Your task to perform on an android device: turn on bluetooth scan Image 0: 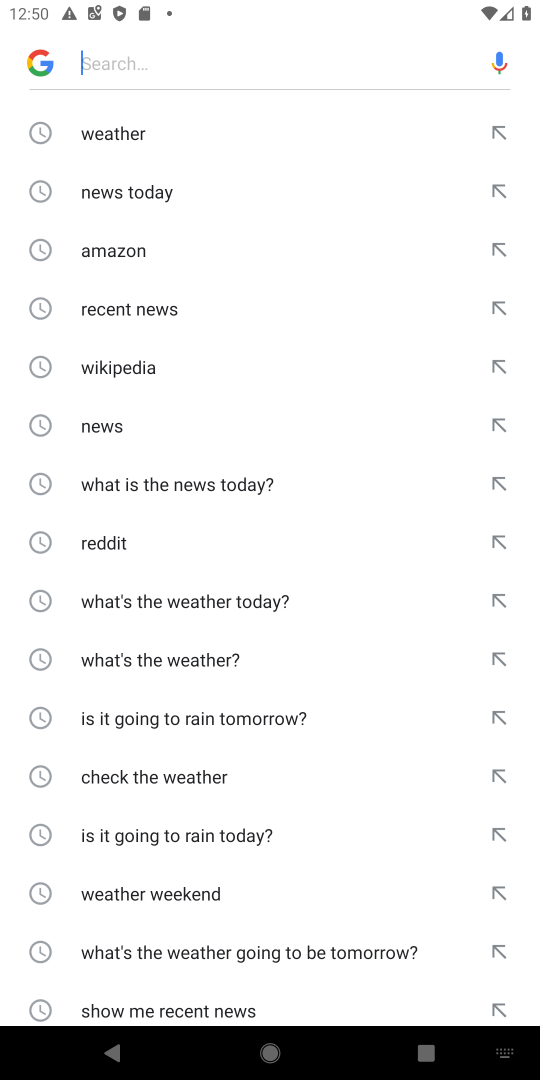
Step 0: press home button
Your task to perform on an android device: turn on bluetooth scan Image 1: 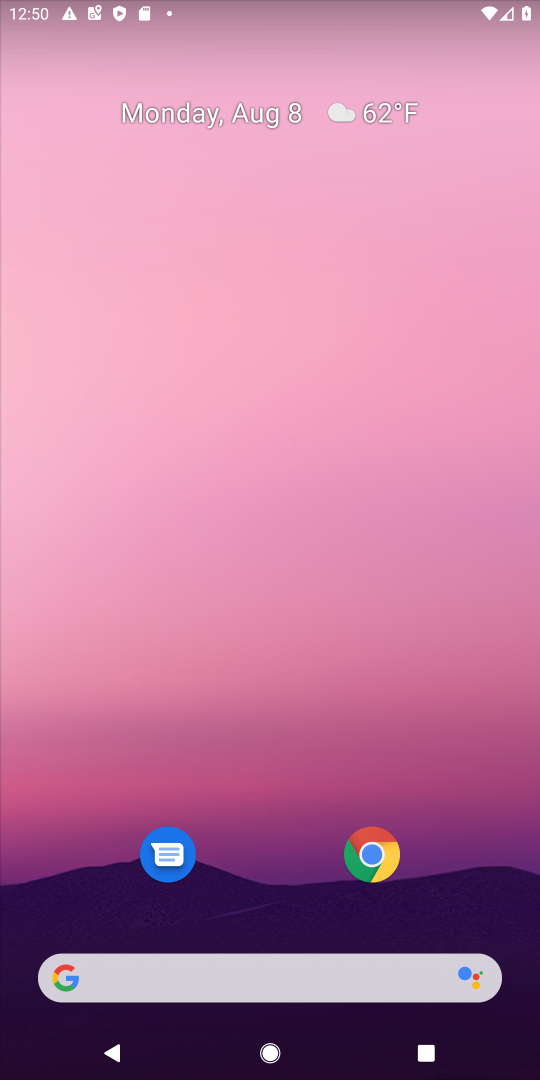
Step 1: drag from (267, 857) to (150, 14)
Your task to perform on an android device: turn on bluetooth scan Image 2: 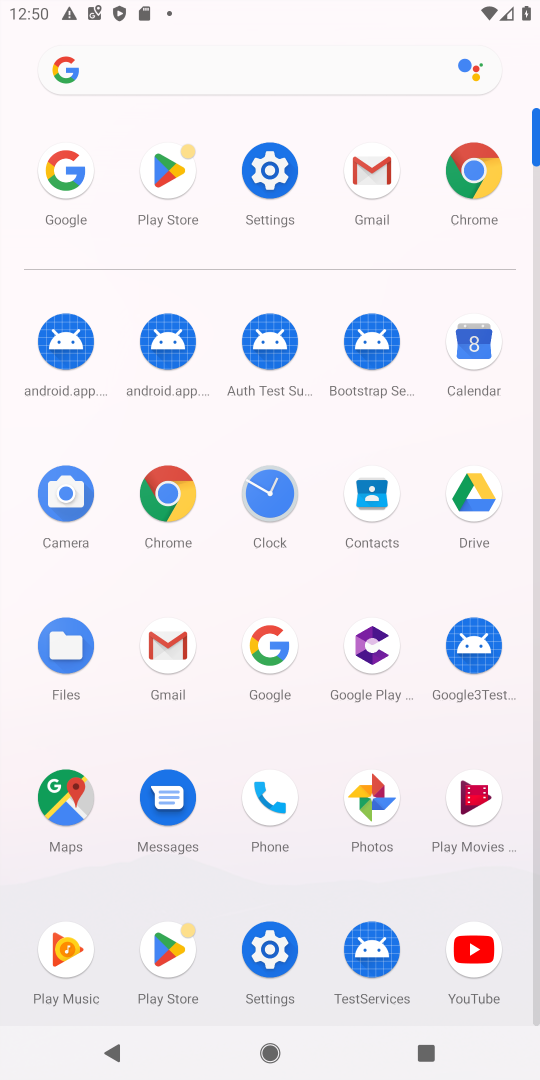
Step 2: click (278, 162)
Your task to perform on an android device: turn on bluetooth scan Image 3: 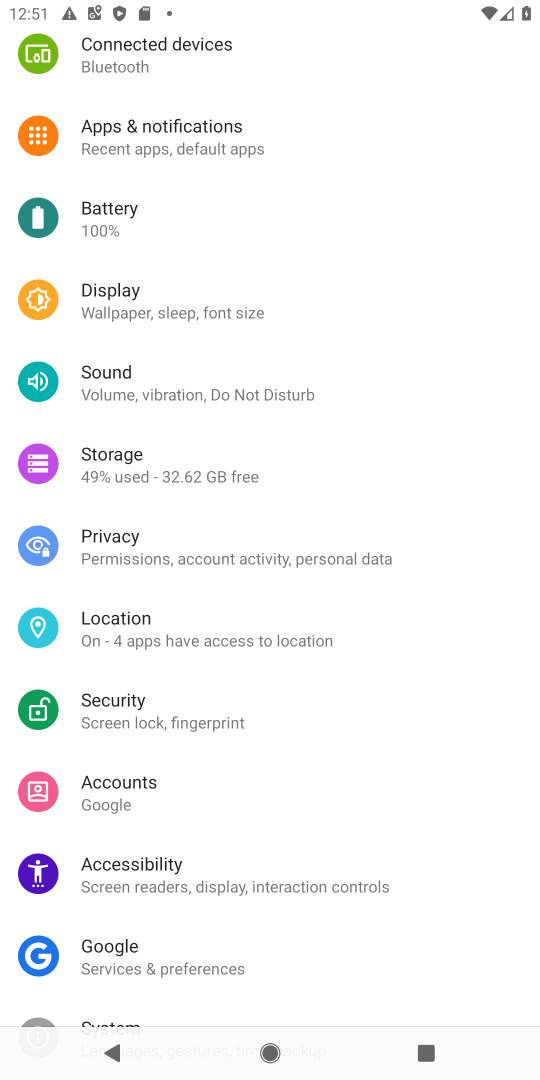
Step 3: click (123, 634)
Your task to perform on an android device: turn on bluetooth scan Image 4: 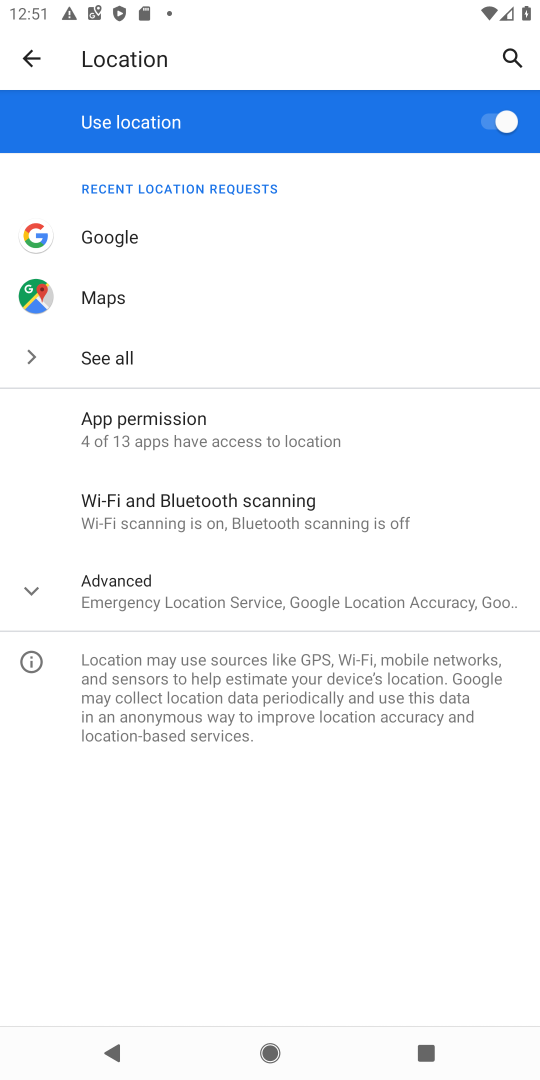
Step 4: click (24, 586)
Your task to perform on an android device: turn on bluetooth scan Image 5: 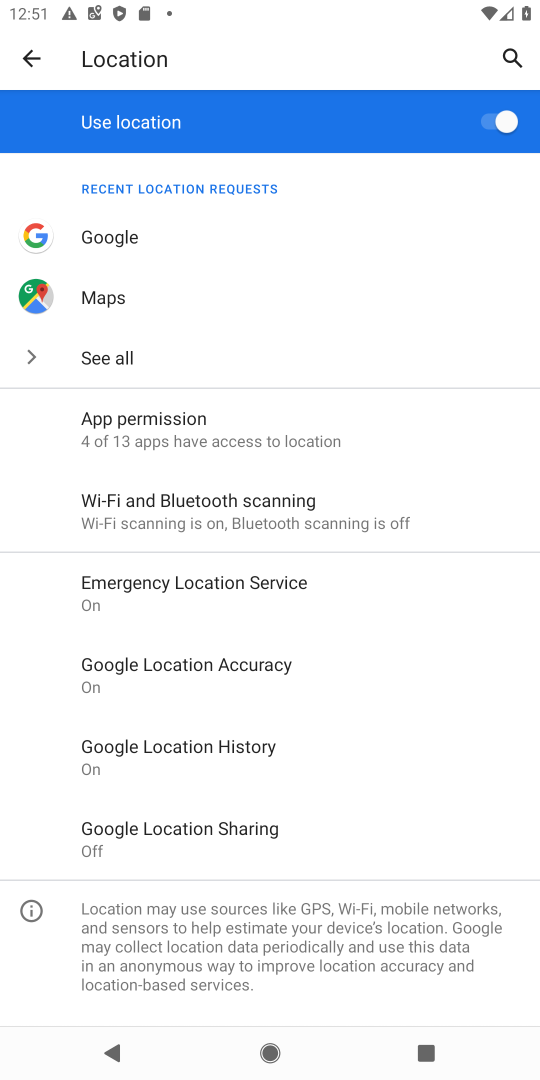
Step 5: click (197, 495)
Your task to perform on an android device: turn on bluetooth scan Image 6: 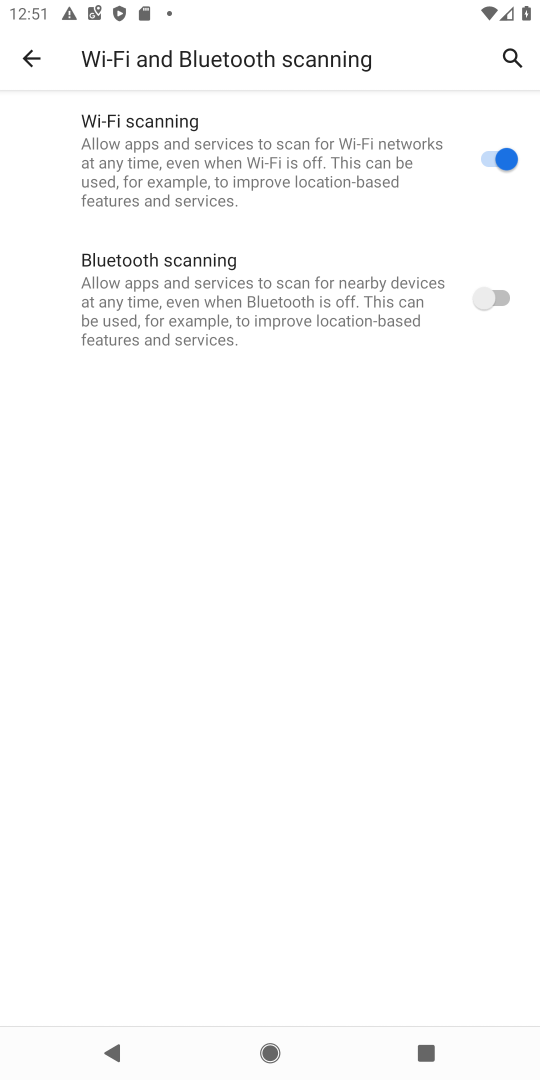
Step 6: click (489, 286)
Your task to perform on an android device: turn on bluetooth scan Image 7: 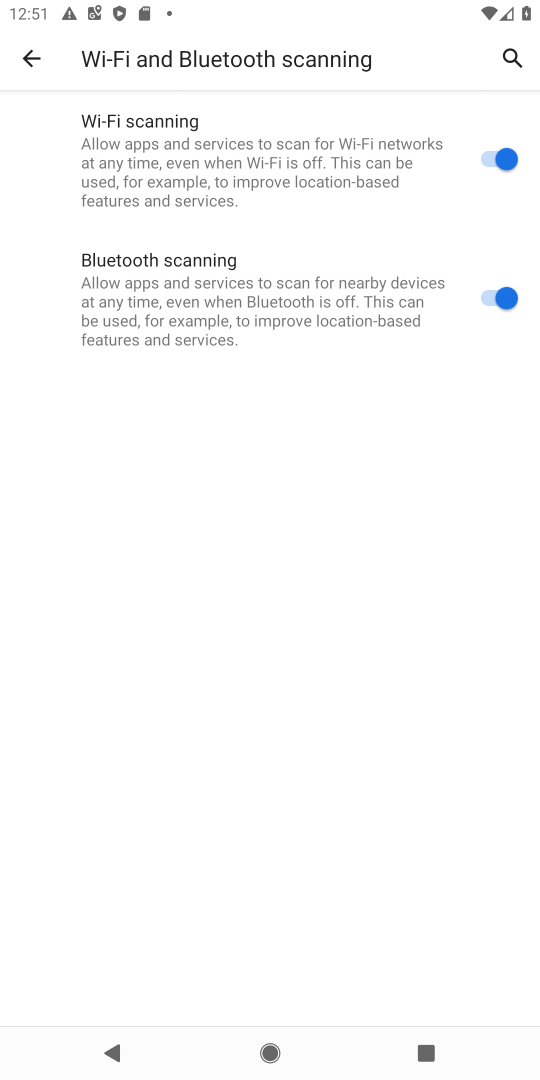
Step 7: task complete